Your task to perform on an android device: search for starred emails in the gmail app Image 0: 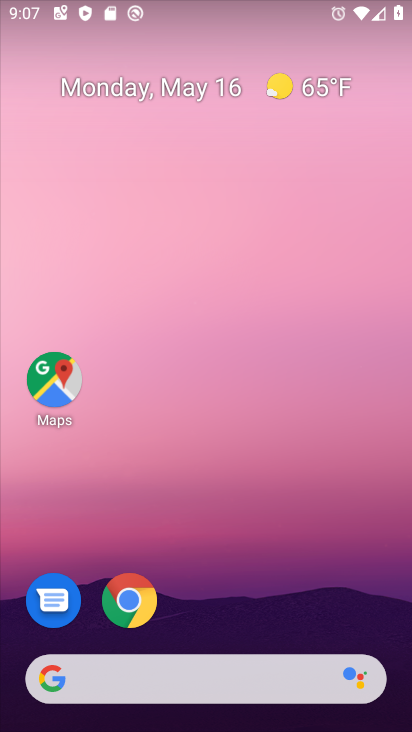
Step 0: drag from (174, 605) to (231, 80)
Your task to perform on an android device: search for starred emails in the gmail app Image 1: 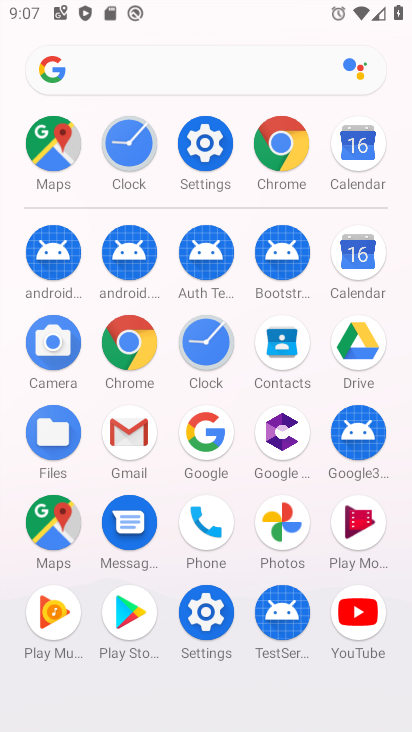
Step 1: click (135, 434)
Your task to perform on an android device: search for starred emails in the gmail app Image 2: 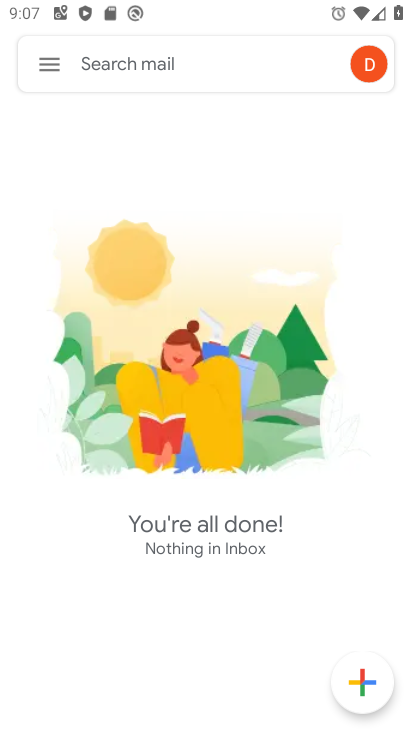
Step 2: click (43, 71)
Your task to perform on an android device: search for starred emails in the gmail app Image 3: 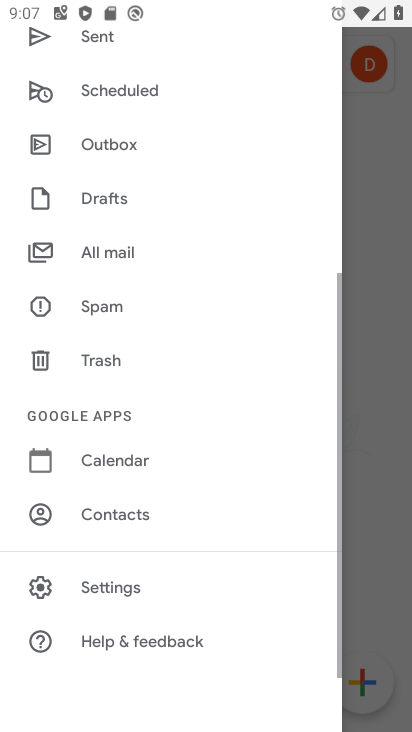
Step 3: drag from (188, 138) to (185, 726)
Your task to perform on an android device: search for starred emails in the gmail app Image 4: 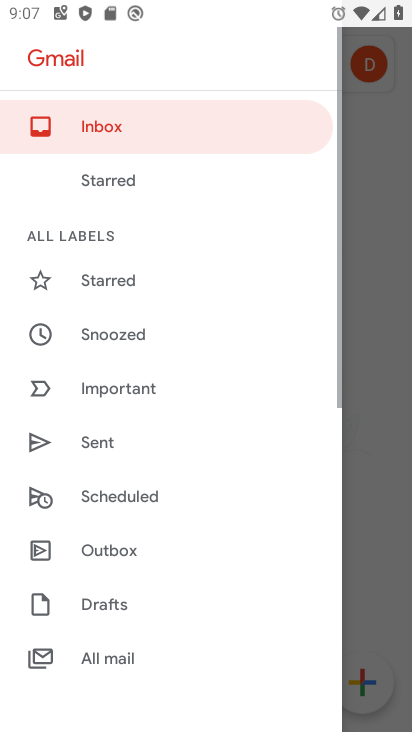
Step 4: click (162, 299)
Your task to perform on an android device: search for starred emails in the gmail app Image 5: 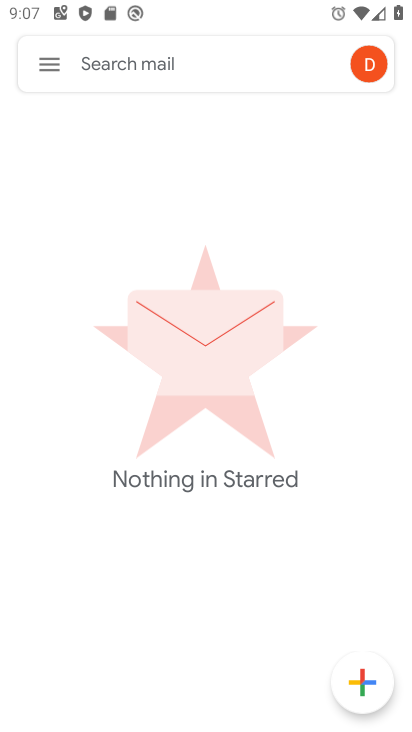
Step 5: task complete